Your task to perform on an android device: Open Yahoo.com Image 0: 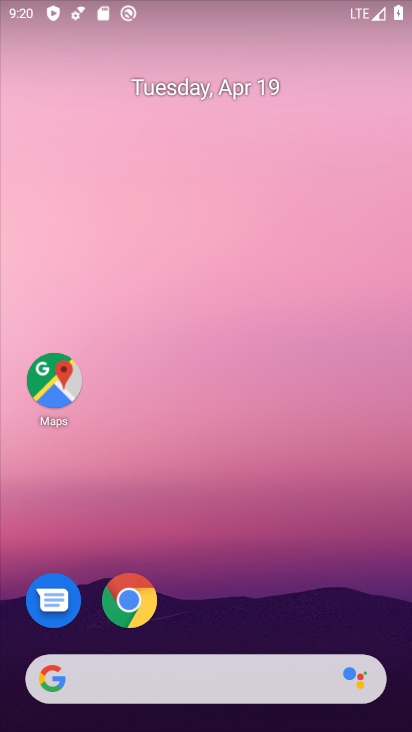
Step 0: click (130, 606)
Your task to perform on an android device: Open Yahoo.com Image 1: 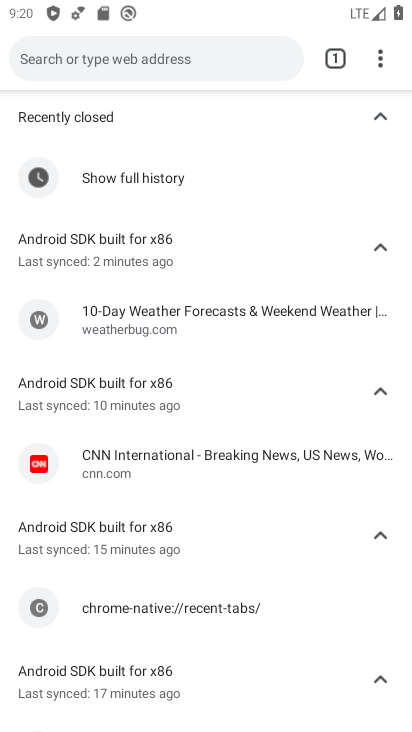
Step 1: click (165, 63)
Your task to perform on an android device: Open Yahoo.com Image 2: 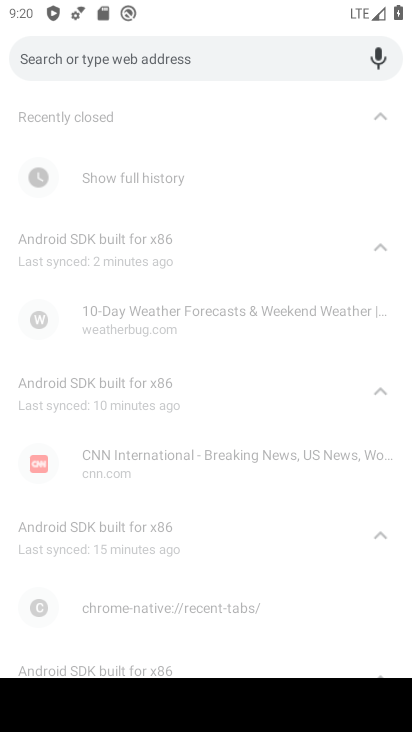
Step 2: type "yahoo.com"
Your task to perform on an android device: Open Yahoo.com Image 3: 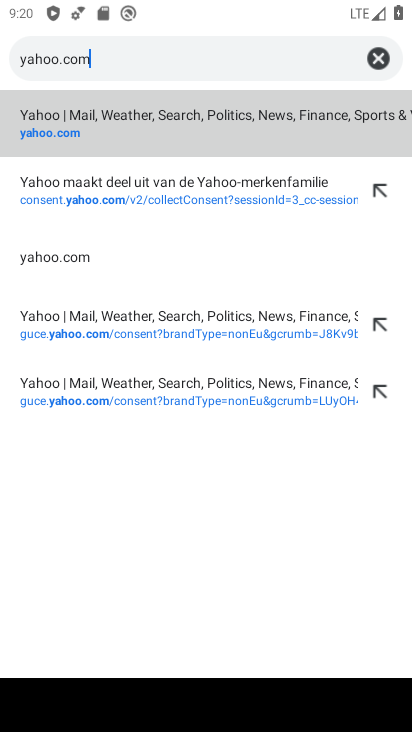
Step 3: click (53, 117)
Your task to perform on an android device: Open Yahoo.com Image 4: 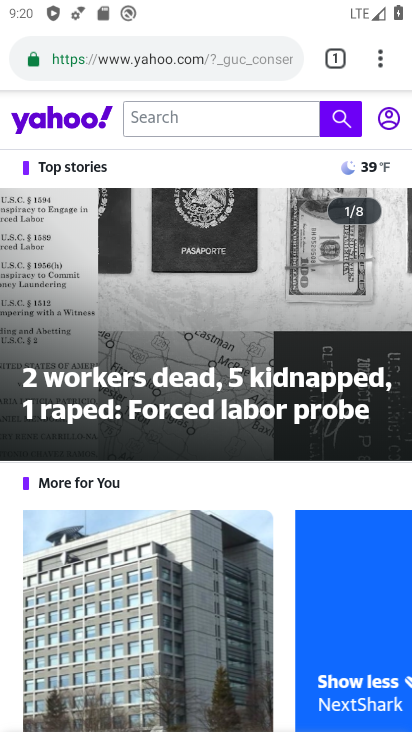
Step 4: task complete